Your task to perform on an android device: change timer sound Image 0: 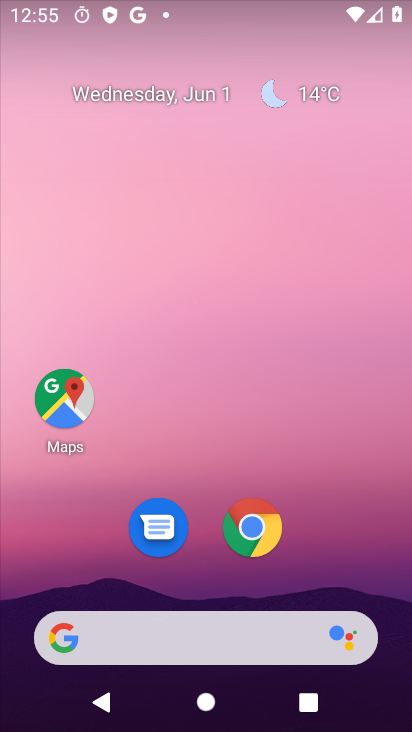
Step 0: drag from (203, 595) to (283, 143)
Your task to perform on an android device: change timer sound Image 1: 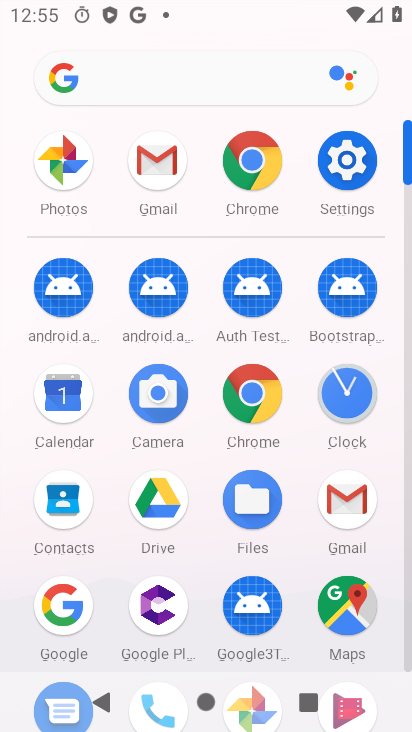
Step 1: click (354, 390)
Your task to perform on an android device: change timer sound Image 2: 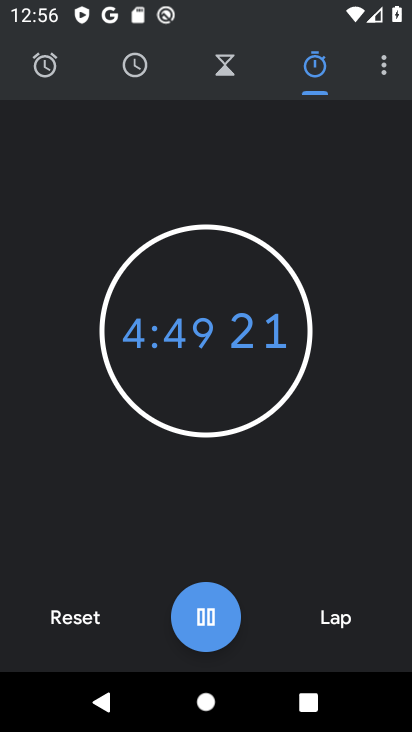
Step 2: click (388, 78)
Your task to perform on an android device: change timer sound Image 3: 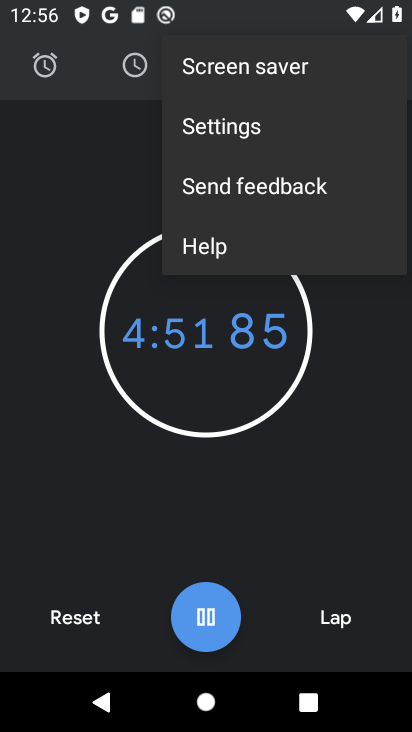
Step 3: click (264, 132)
Your task to perform on an android device: change timer sound Image 4: 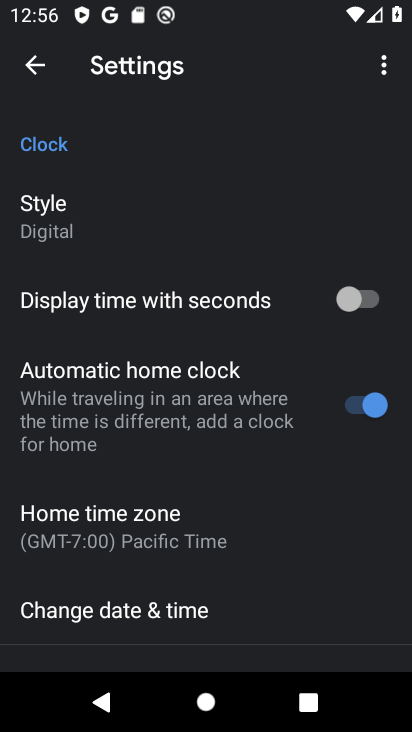
Step 4: drag from (146, 484) to (235, 181)
Your task to perform on an android device: change timer sound Image 5: 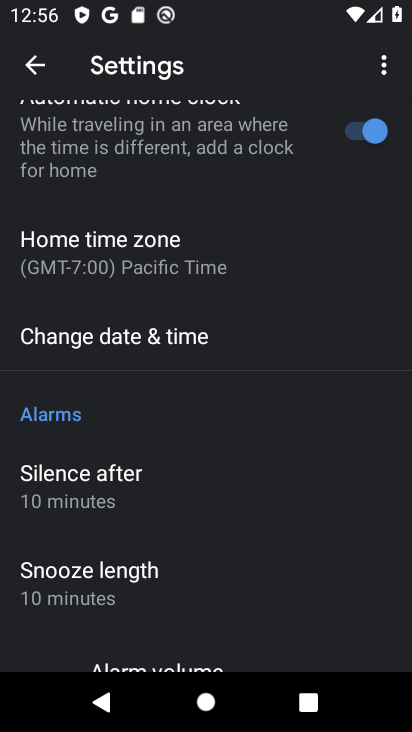
Step 5: drag from (196, 503) to (252, 226)
Your task to perform on an android device: change timer sound Image 6: 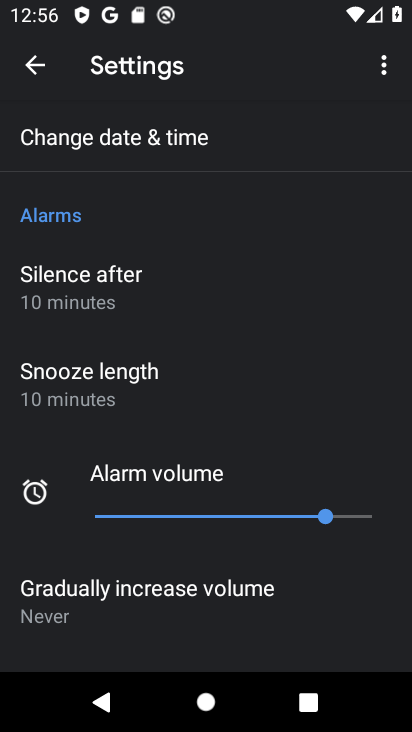
Step 6: drag from (144, 502) to (224, 173)
Your task to perform on an android device: change timer sound Image 7: 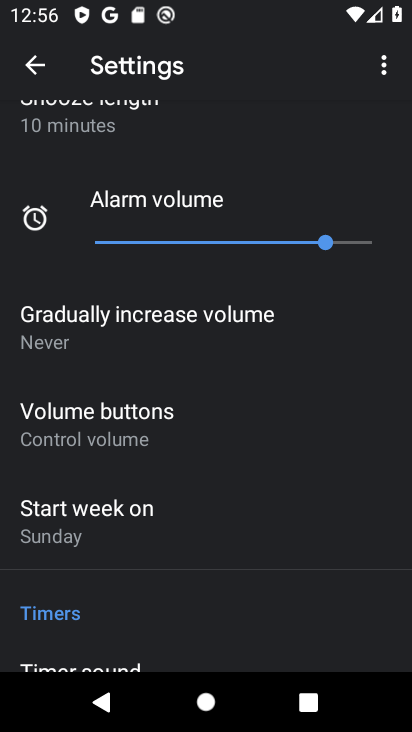
Step 7: drag from (159, 521) to (216, 242)
Your task to perform on an android device: change timer sound Image 8: 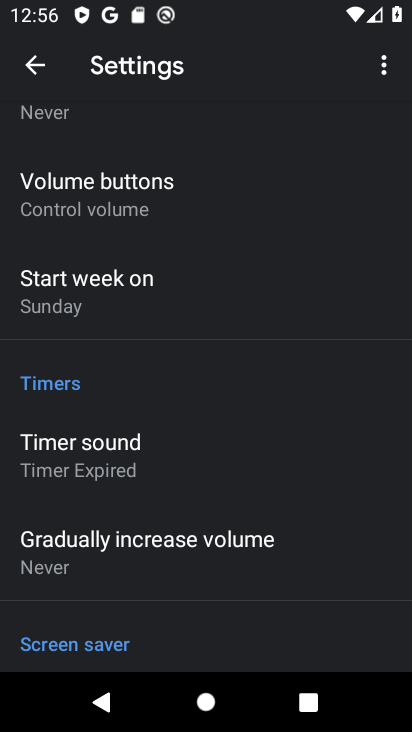
Step 8: click (158, 459)
Your task to perform on an android device: change timer sound Image 9: 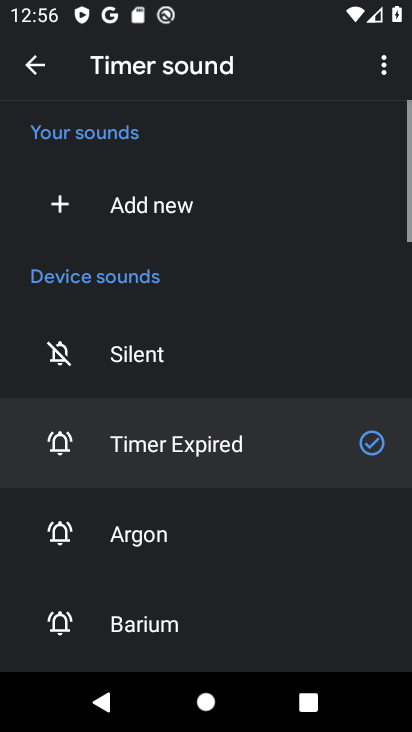
Step 9: click (156, 533)
Your task to perform on an android device: change timer sound Image 10: 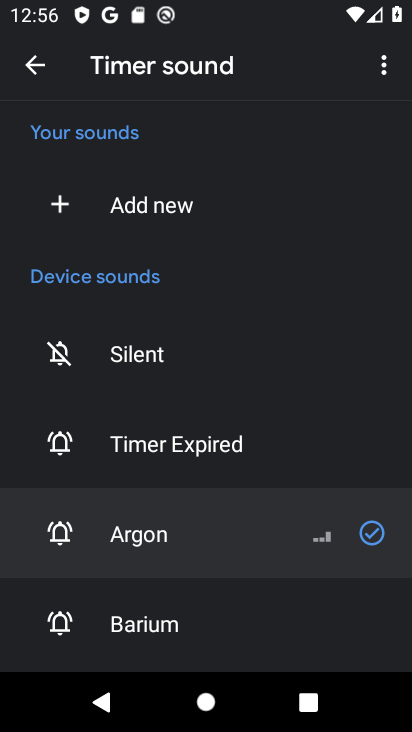
Step 10: task complete